Your task to perform on an android device: Go to calendar. Show me events next week Image 0: 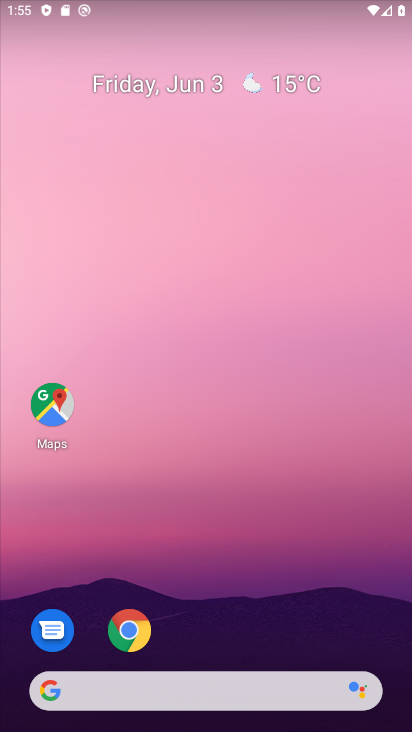
Step 0: drag from (235, 596) to (170, 59)
Your task to perform on an android device: Go to calendar. Show me events next week Image 1: 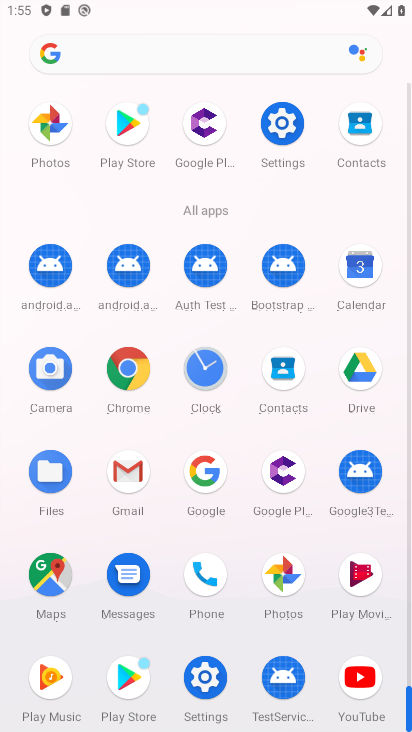
Step 1: drag from (6, 555) to (19, 161)
Your task to perform on an android device: Go to calendar. Show me events next week Image 2: 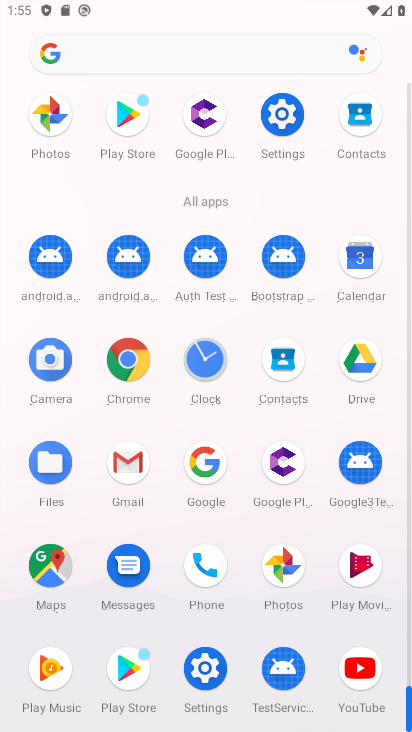
Step 2: click (362, 252)
Your task to perform on an android device: Go to calendar. Show me events next week Image 3: 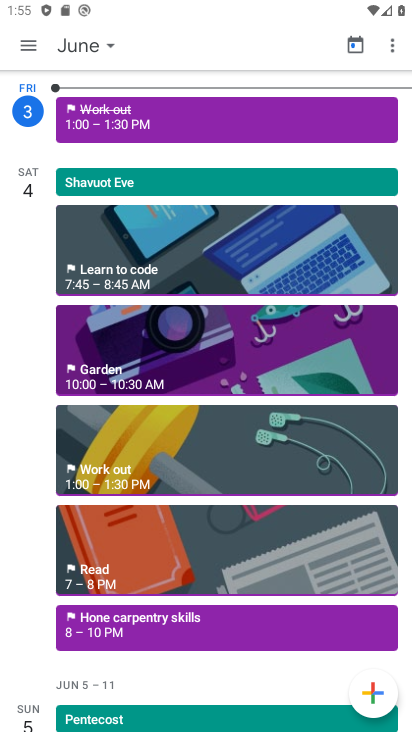
Step 3: click (76, 43)
Your task to perform on an android device: Go to calendar. Show me events next week Image 4: 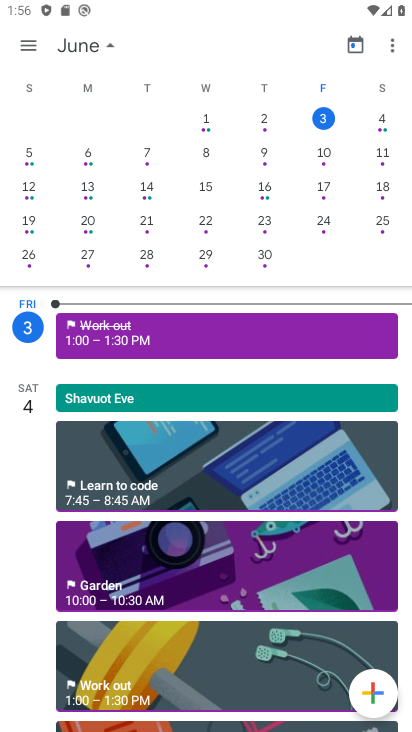
Step 4: click (14, 37)
Your task to perform on an android device: Go to calendar. Show me events next week Image 5: 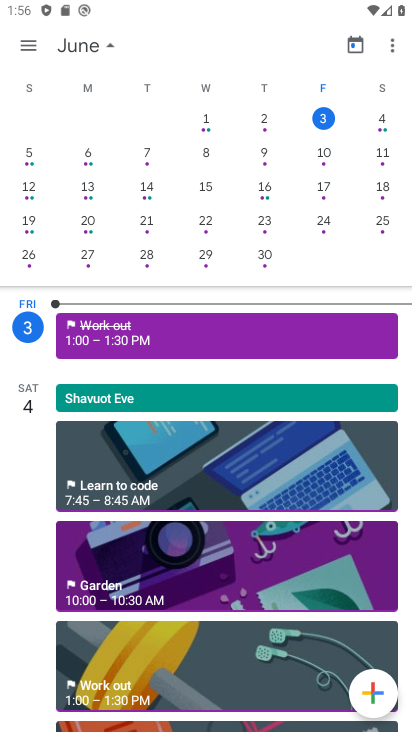
Step 5: click (31, 51)
Your task to perform on an android device: Go to calendar. Show me events next week Image 6: 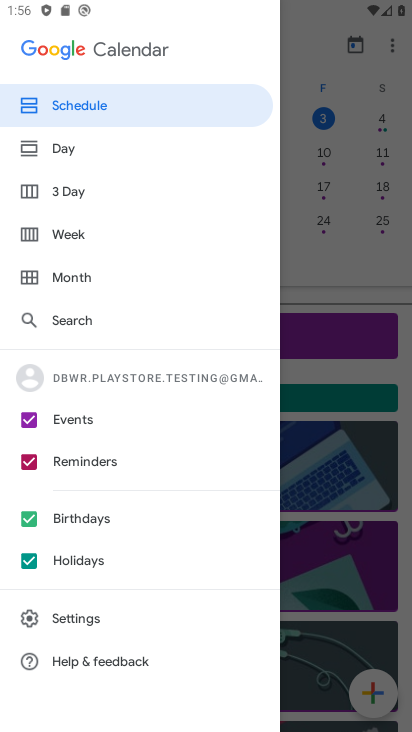
Step 6: click (76, 236)
Your task to perform on an android device: Go to calendar. Show me events next week Image 7: 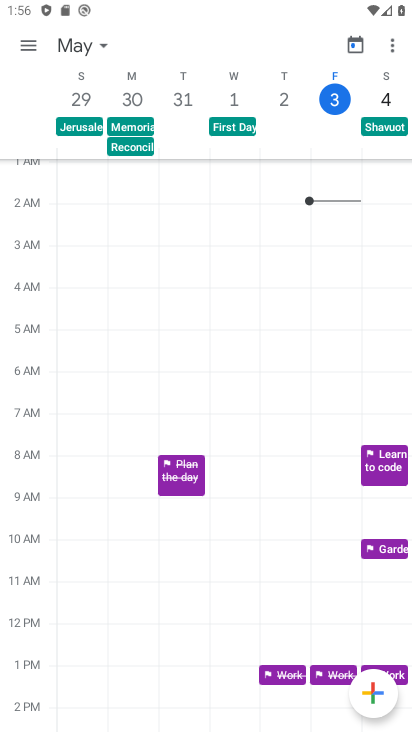
Step 7: task complete